Your task to perform on an android device: Open CNN.com Image 0: 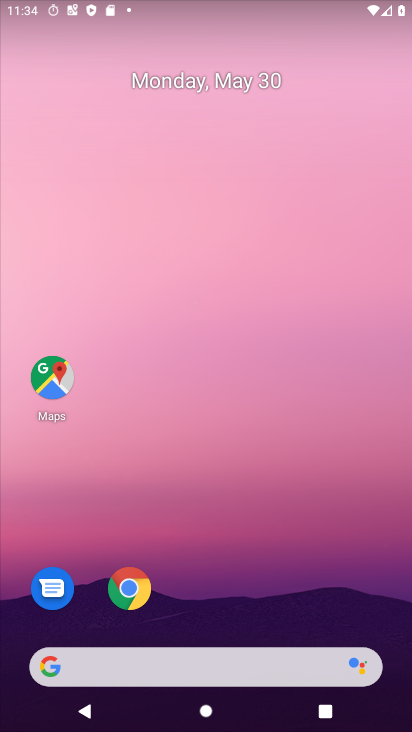
Step 0: click (135, 584)
Your task to perform on an android device: Open CNN.com Image 1: 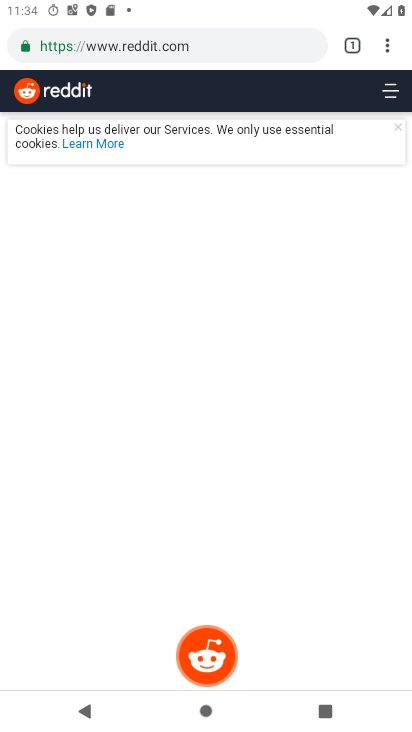
Step 1: click (347, 44)
Your task to perform on an android device: Open CNN.com Image 2: 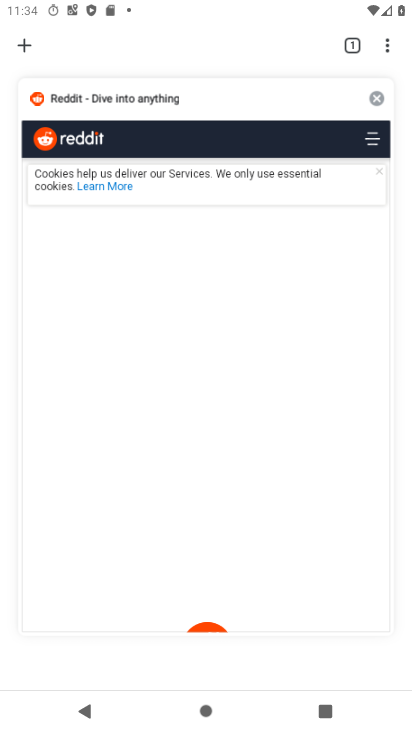
Step 2: click (382, 99)
Your task to perform on an android device: Open CNN.com Image 3: 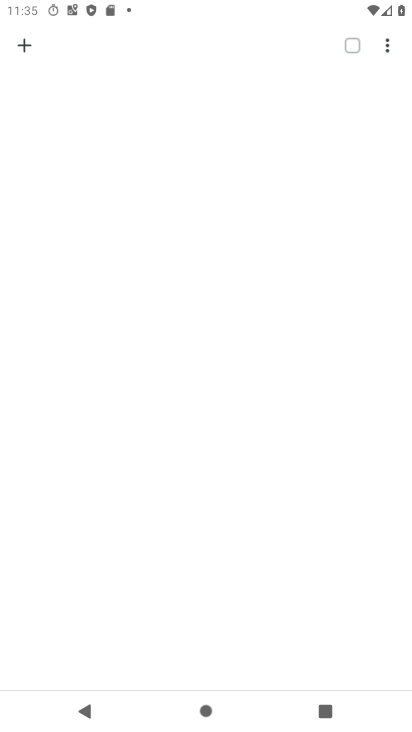
Step 3: click (15, 45)
Your task to perform on an android device: Open CNN.com Image 4: 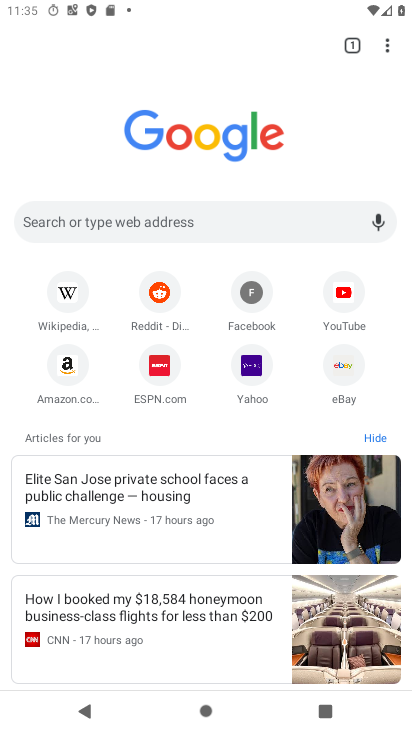
Step 4: click (90, 214)
Your task to perform on an android device: Open CNN.com Image 5: 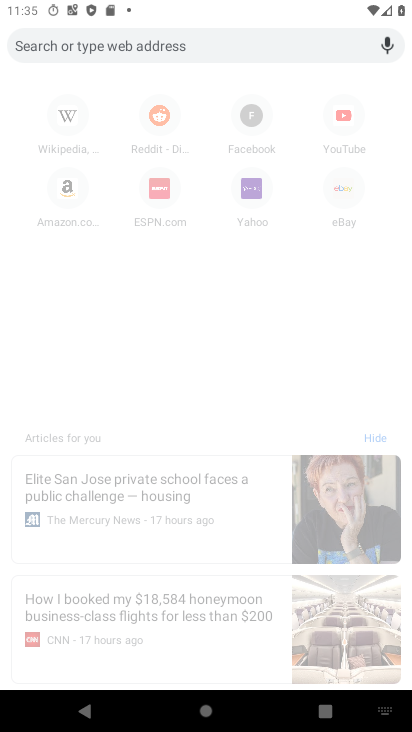
Step 5: type "cnn.com"
Your task to perform on an android device: Open CNN.com Image 6: 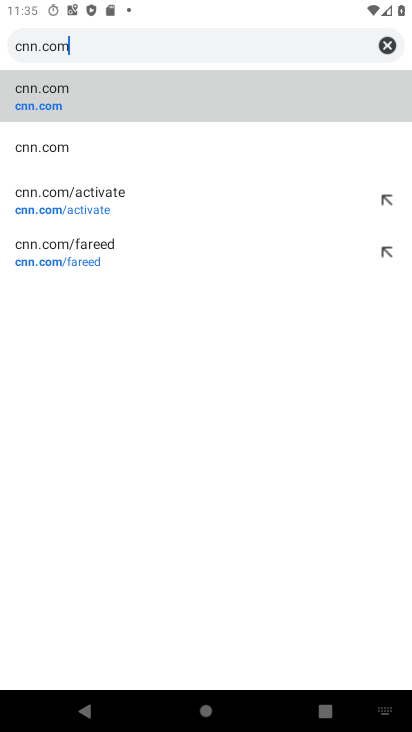
Step 6: click (100, 95)
Your task to perform on an android device: Open CNN.com Image 7: 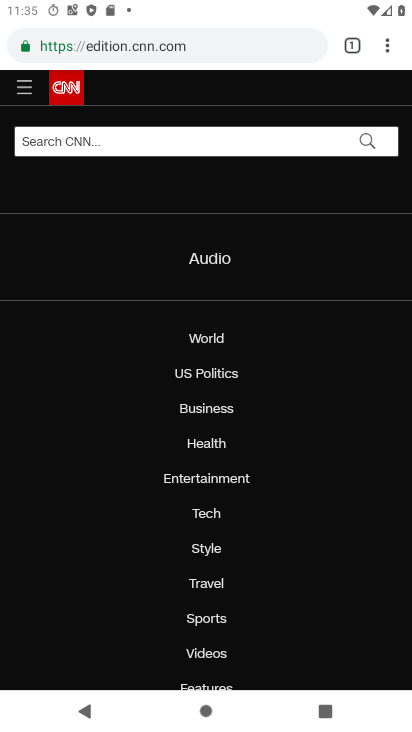
Step 7: click (197, 334)
Your task to perform on an android device: Open CNN.com Image 8: 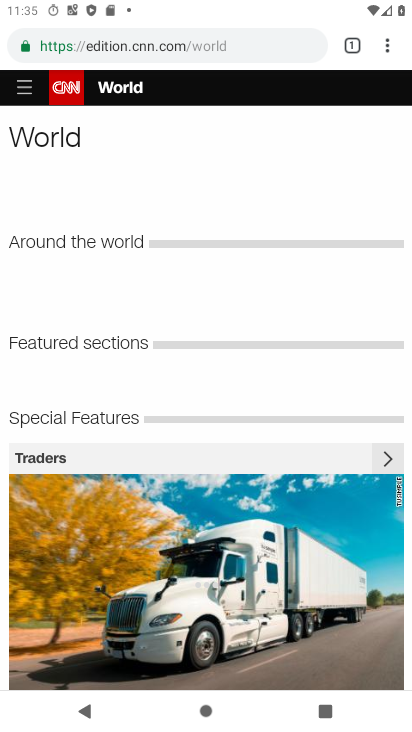
Step 8: task complete